Your task to perform on an android device: set the stopwatch Image 0: 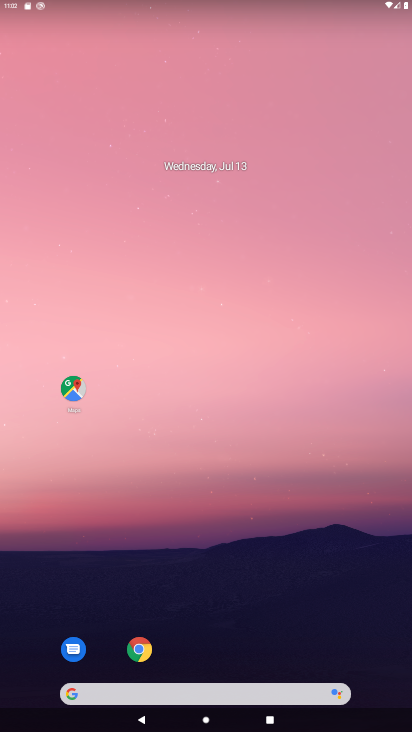
Step 0: drag from (224, 671) to (276, 118)
Your task to perform on an android device: set the stopwatch Image 1: 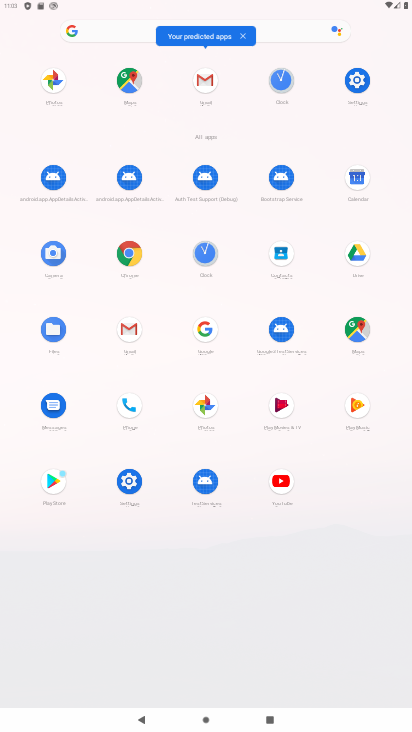
Step 1: click (284, 82)
Your task to perform on an android device: set the stopwatch Image 2: 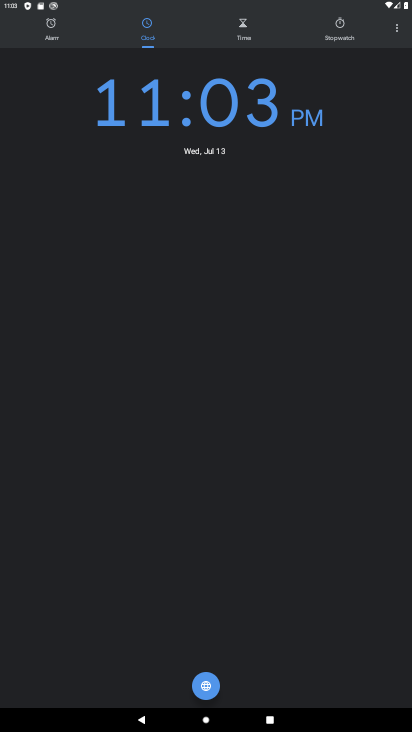
Step 2: click (339, 26)
Your task to perform on an android device: set the stopwatch Image 3: 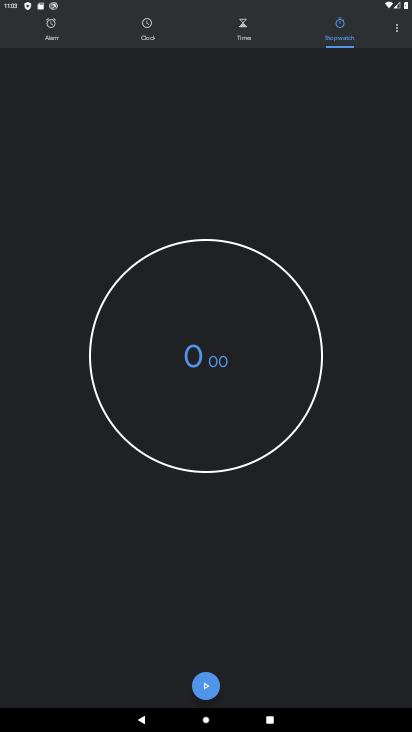
Step 3: click (214, 397)
Your task to perform on an android device: set the stopwatch Image 4: 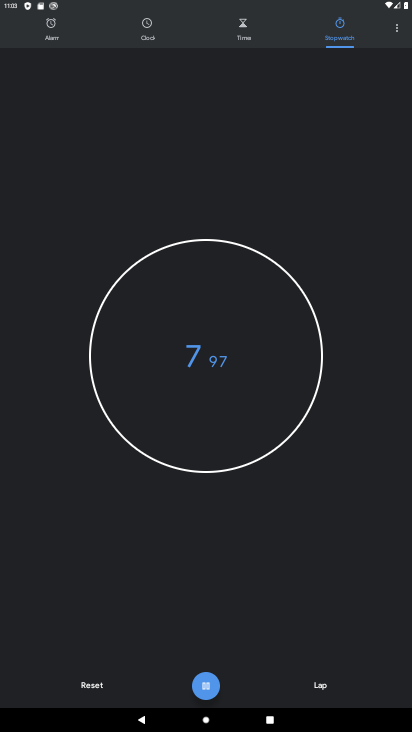
Step 4: click (214, 397)
Your task to perform on an android device: set the stopwatch Image 5: 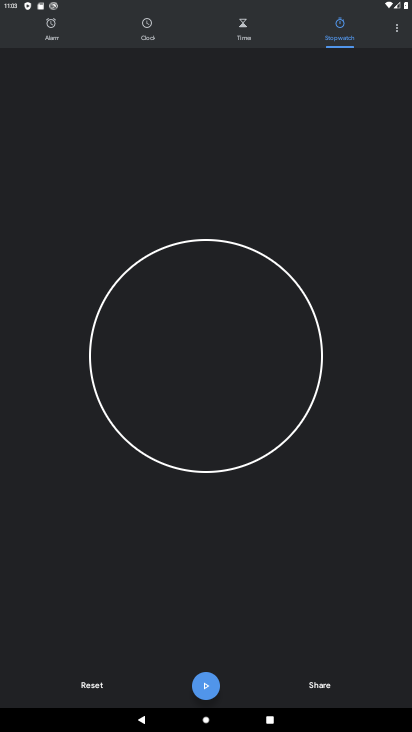
Step 5: task complete